Your task to perform on an android device: turn off priority inbox in the gmail app Image 0: 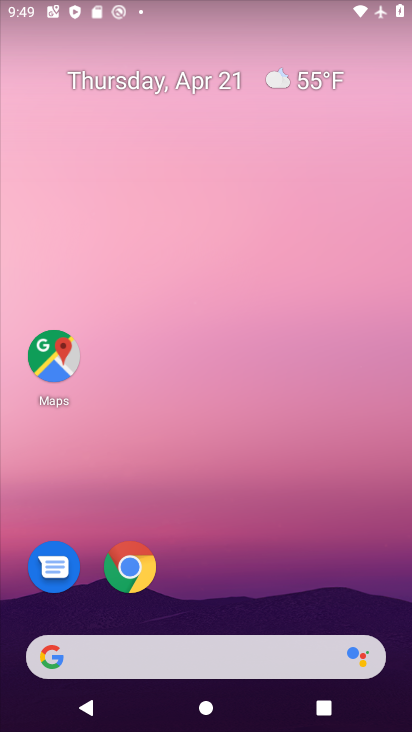
Step 0: drag from (395, 605) to (263, 50)
Your task to perform on an android device: turn off priority inbox in the gmail app Image 1: 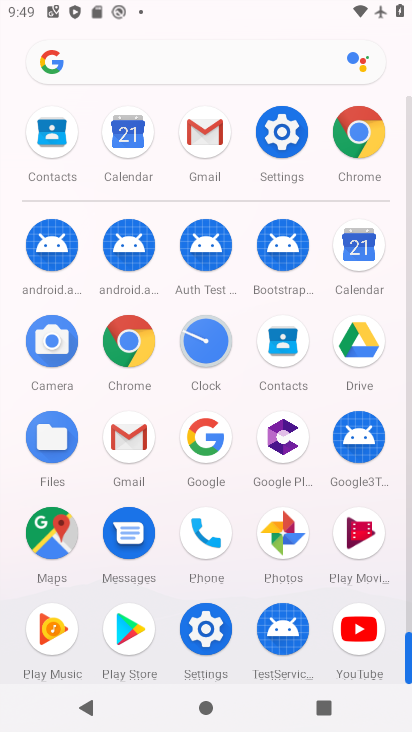
Step 1: click (123, 437)
Your task to perform on an android device: turn off priority inbox in the gmail app Image 2: 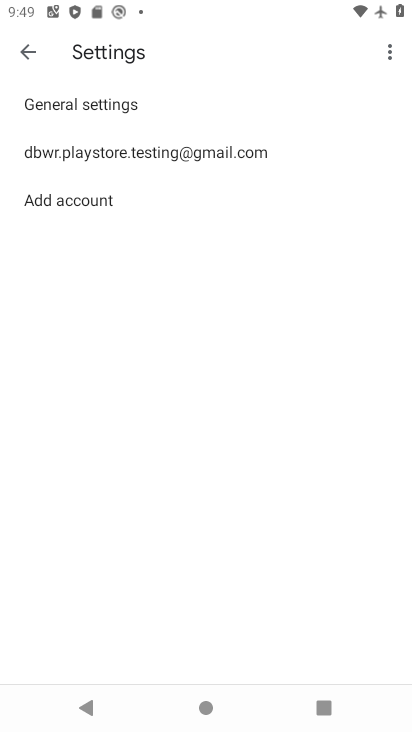
Step 2: click (143, 150)
Your task to perform on an android device: turn off priority inbox in the gmail app Image 3: 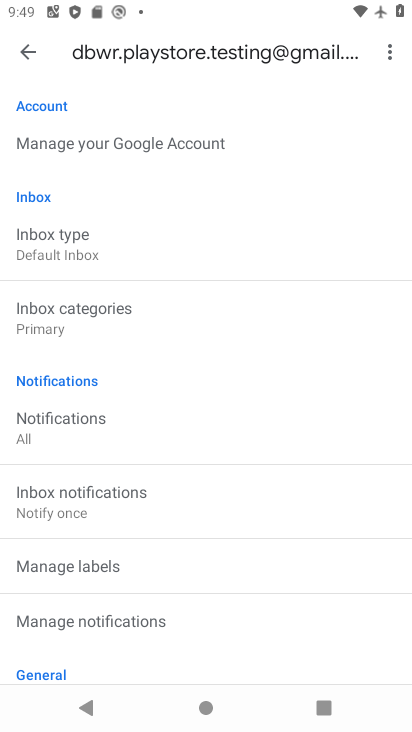
Step 3: click (73, 244)
Your task to perform on an android device: turn off priority inbox in the gmail app Image 4: 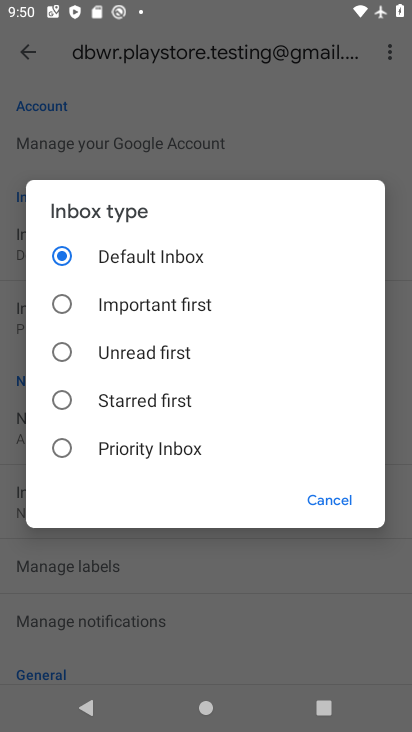
Step 4: task complete